Your task to perform on an android device: Open Amazon Image 0: 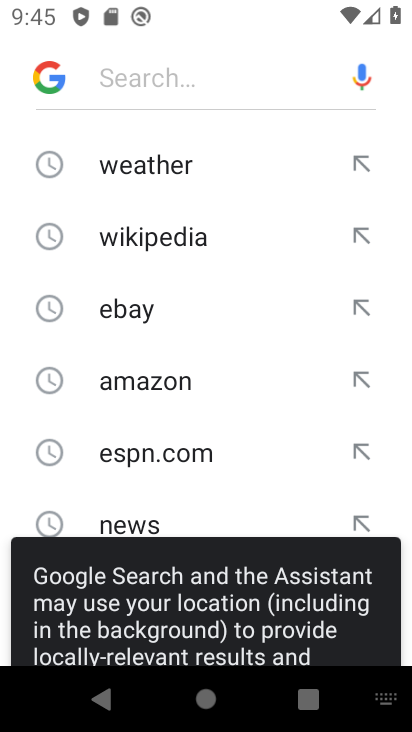
Step 0: press home button
Your task to perform on an android device: Open Amazon Image 1: 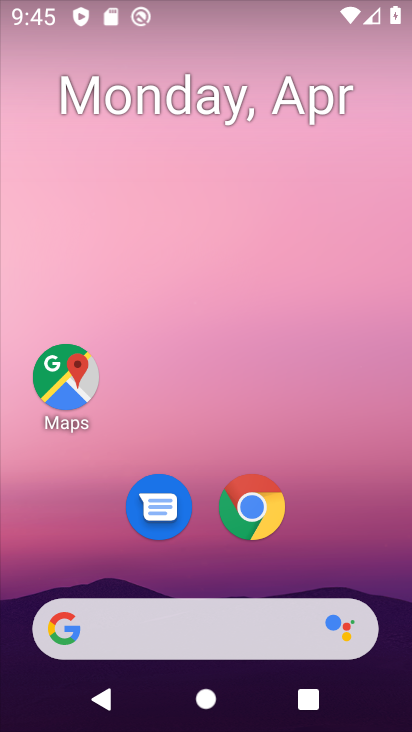
Step 1: click (254, 503)
Your task to perform on an android device: Open Amazon Image 2: 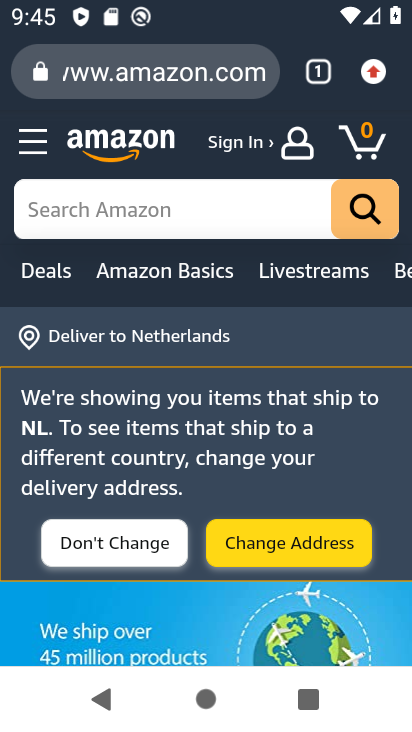
Step 2: task complete